Your task to perform on an android device: open app "Nova Launcher" (install if not already installed) and enter user name: "haggard@gmail.com" and password: "sadder" Image 0: 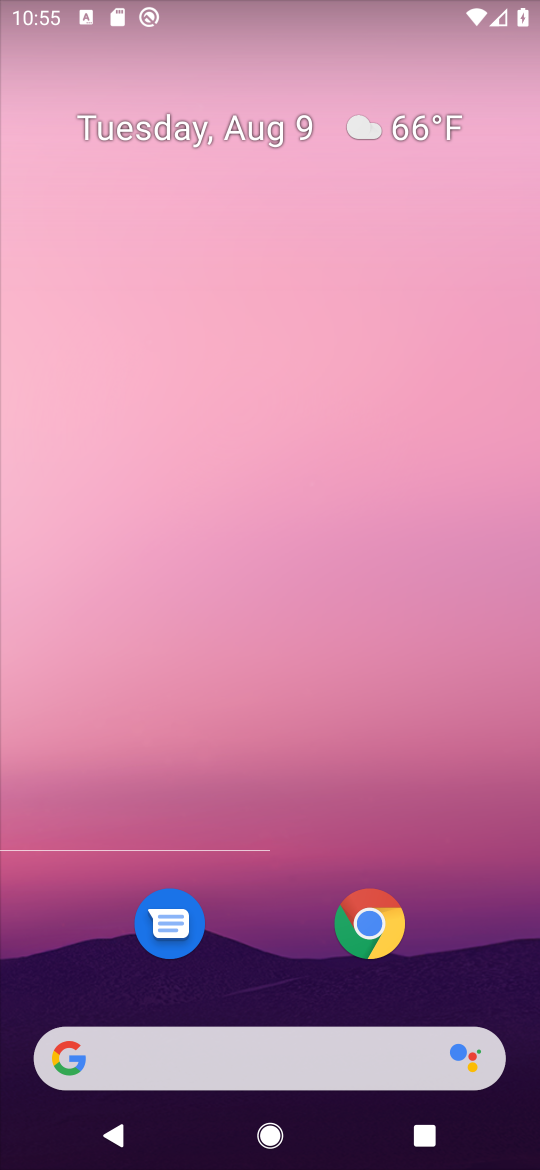
Step 0: press home button
Your task to perform on an android device: open app "Nova Launcher" (install if not already installed) and enter user name: "haggard@gmail.com" and password: "sadder" Image 1: 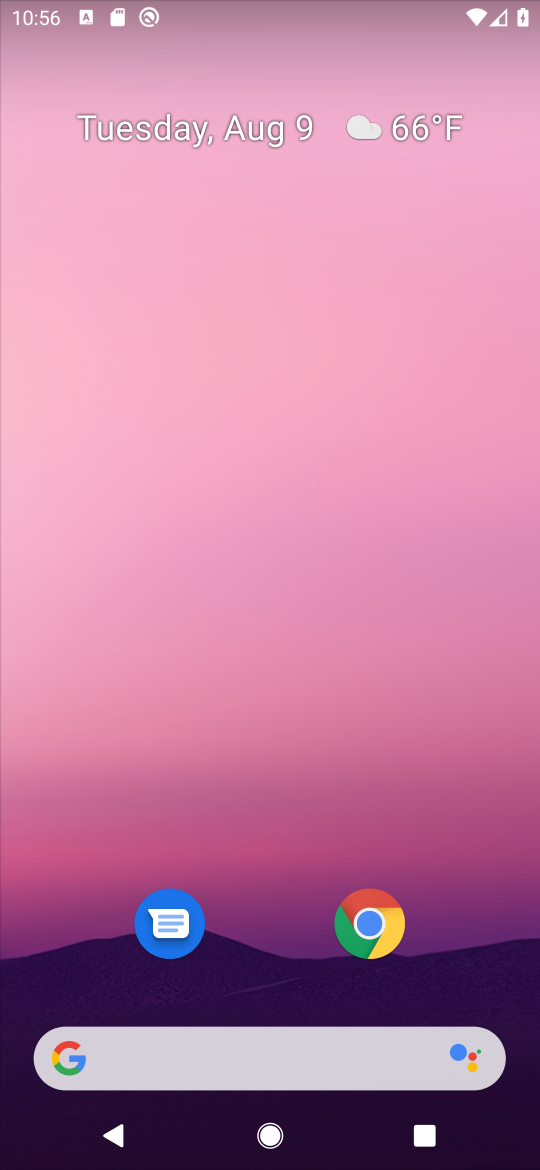
Step 1: drag from (269, 964) to (281, 103)
Your task to perform on an android device: open app "Nova Launcher" (install if not already installed) and enter user name: "haggard@gmail.com" and password: "sadder" Image 2: 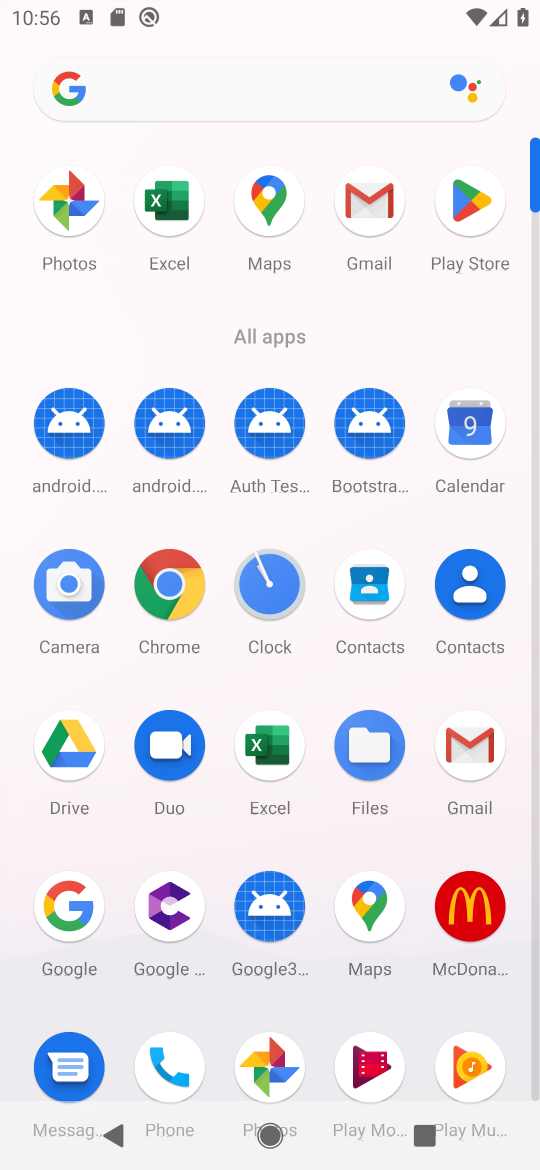
Step 2: click (466, 188)
Your task to perform on an android device: open app "Nova Launcher" (install if not already installed) and enter user name: "haggard@gmail.com" and password: "sadder" Image 3: 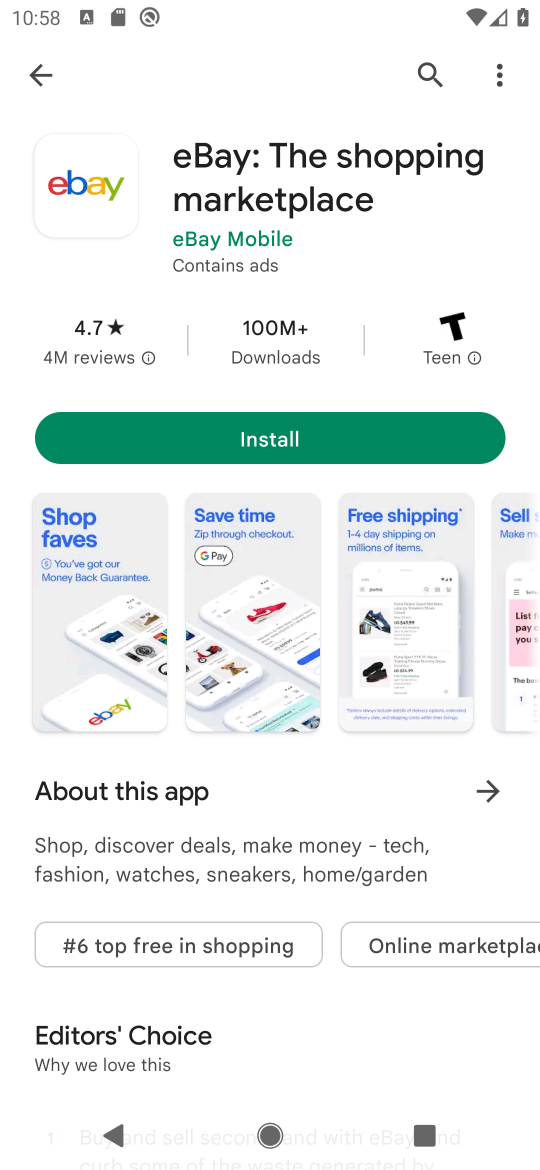
Step 3: click (409, 75)
Your task to perform on an android device: open app "Nova Launcher" (install if not already installed) and enter user name: "haggard@gmail.com" and password: "sadder" Image 4: 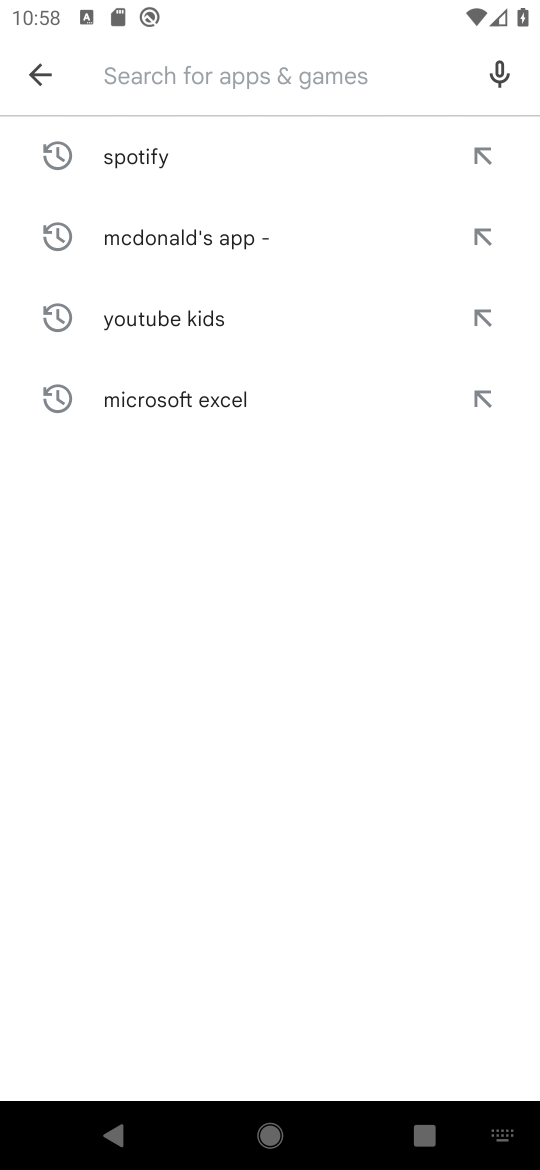
Step 4: type "Nova Launcher"
Your task to perform on an android device: open app "Nova Launcher" (install if not already installed) and enter user name: "haggard@gmail.com" and password: "sadder" Image 5: 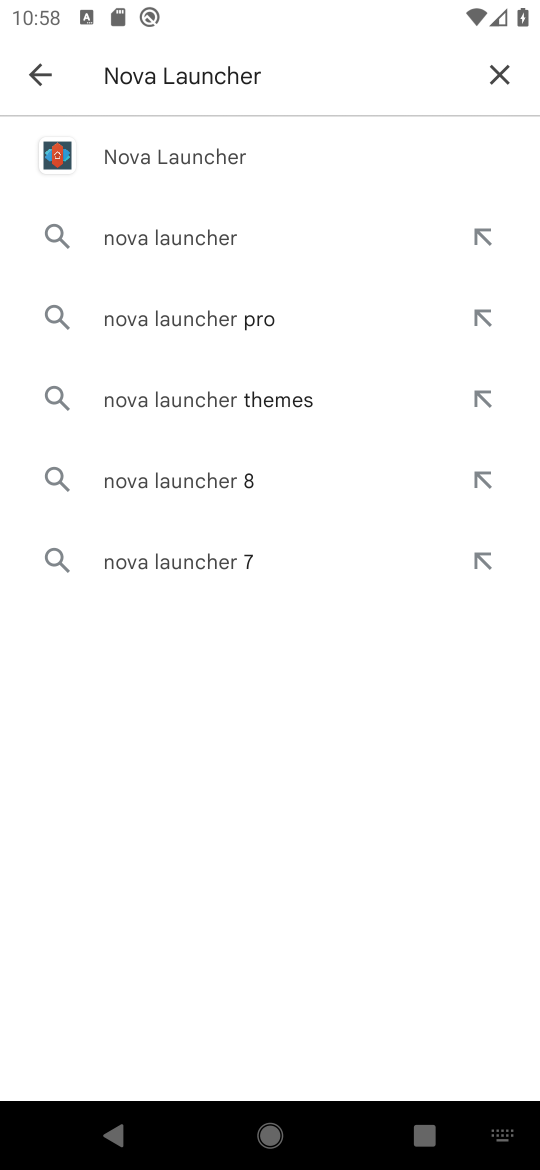
Step 5: click (207, 129)
Your task to perform on an android device: open app "Nova Launcher" (install if not already installed) and enter user name: "haggard@gmail.com" and password: "sadder" Image 6: 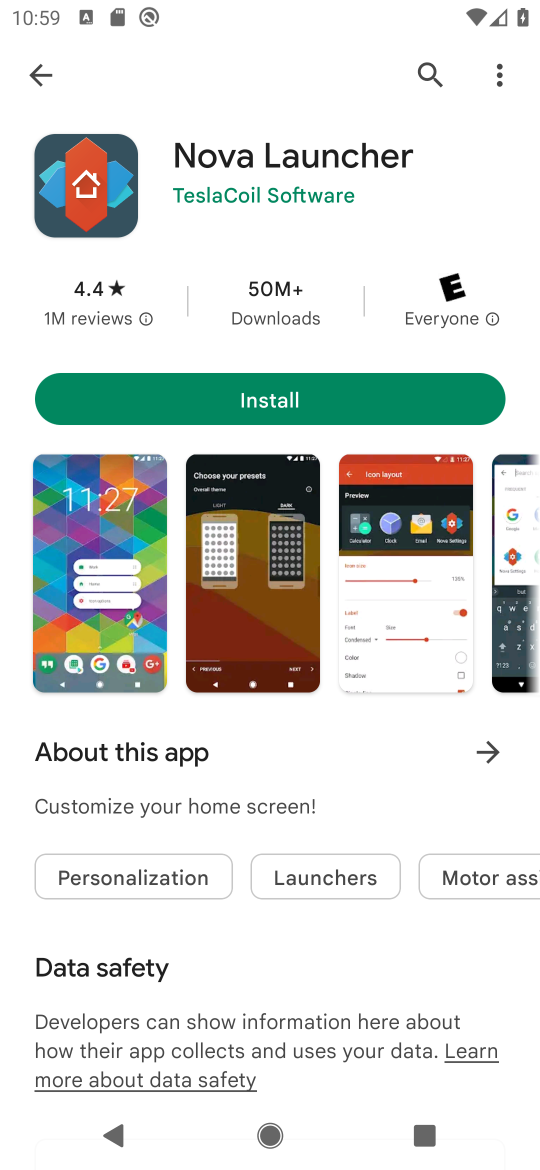
Step 6: click (274, 399)
Your task to perform on an android device: open app "Nova Launcher" (install if not already installed) and enter user name: "haggard@gmail.com" and password: "sadder" Image 7: 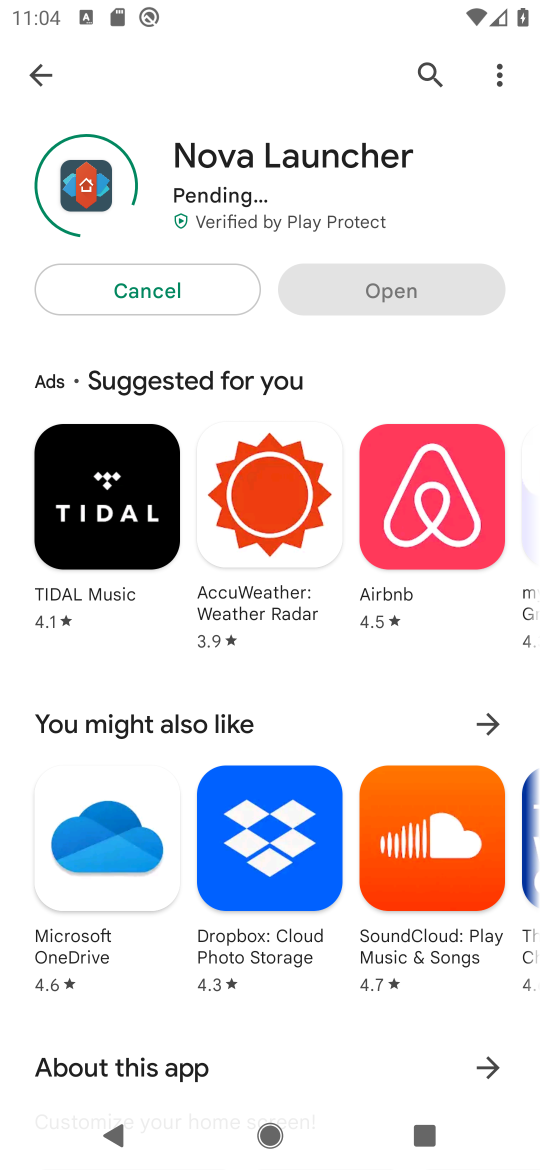
Step 7: task complete